Your task to perform on an android device: set the stopwatch Image 0: 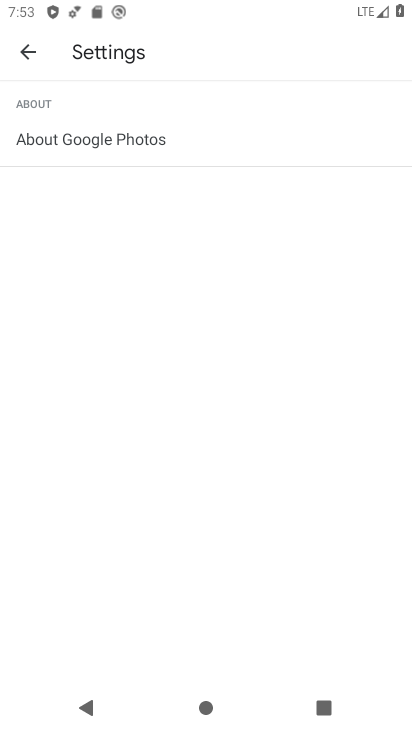
Step 0: press home button
Your task to perform on an android device: set the stopwatch Image 1: 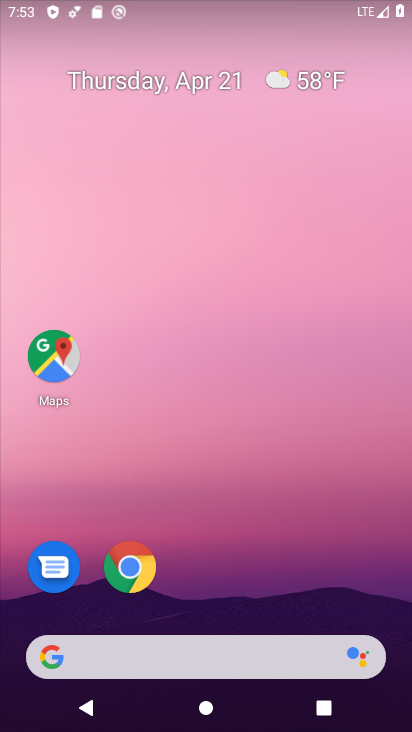
Step 1: drag from (244, 587) to (333, 69)
Your task to perform on an android device: set the stopwatch Image 2: 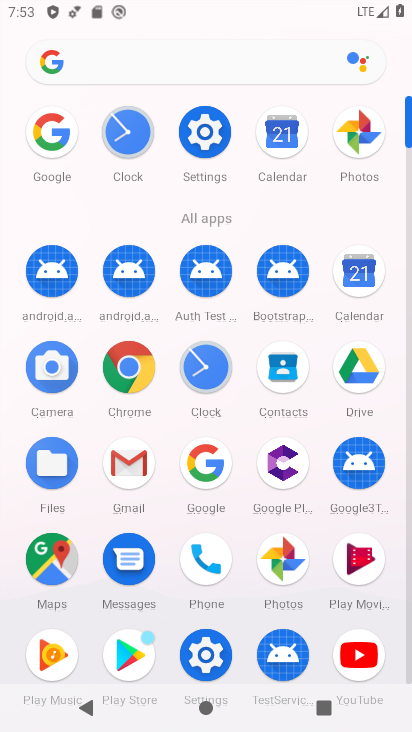
Step 2: click (128, 132)
Your task to perform on an android device: set the stopwatch Image 3: 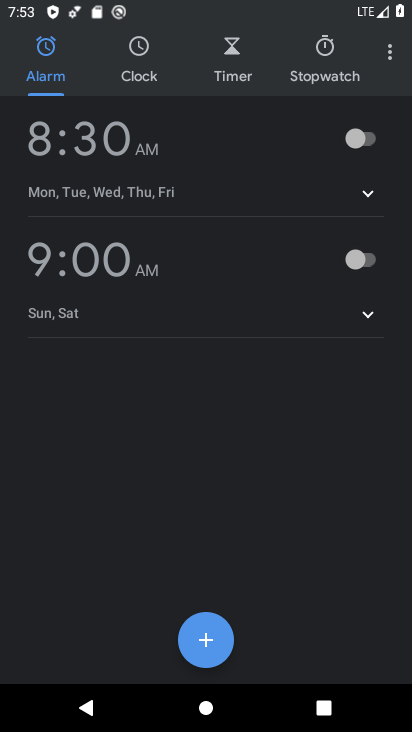
Step 3: click (325, 52)
Your task to perform on an android device: set the stopwatch Image 4: 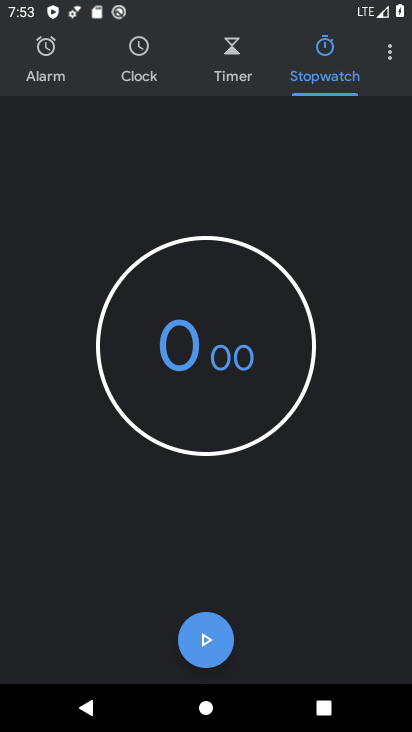
Step 4: click (200, 427)
Your task to perform on an android device: set the stopwatch Image 5: 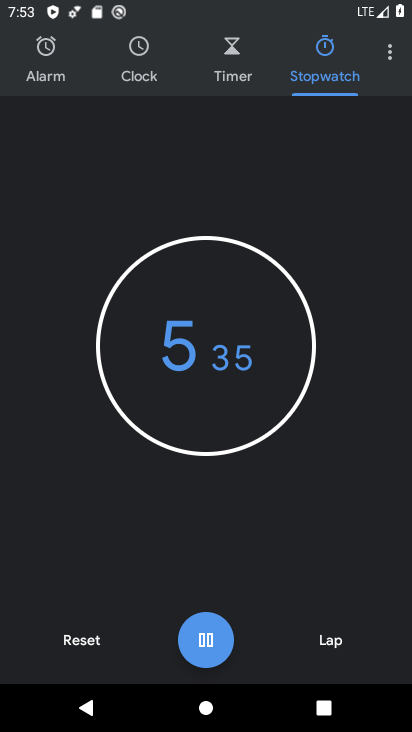
Step 5: click (213, 628)
Your task to perform on an android device: set the stopwatch Image 6: 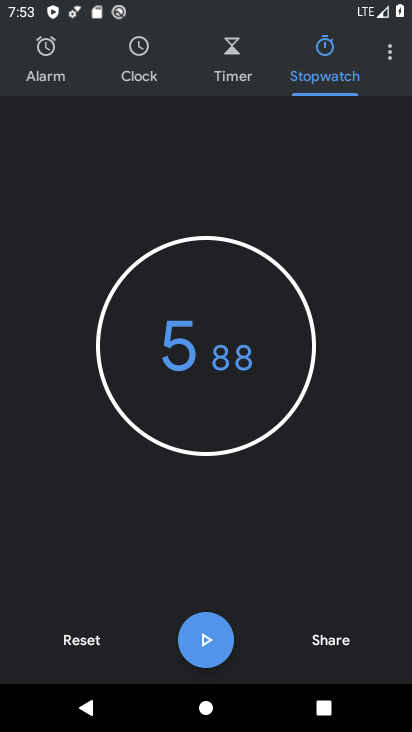
Step 6: task complete